Your task to perform on an android device: Open the stopwatch Image 0: 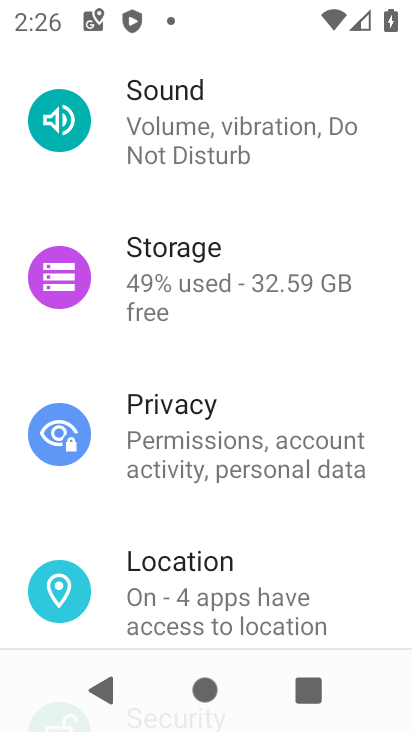
Step 0: press back button
Your task to perform on an android device: Open the stopwatch Image 1: 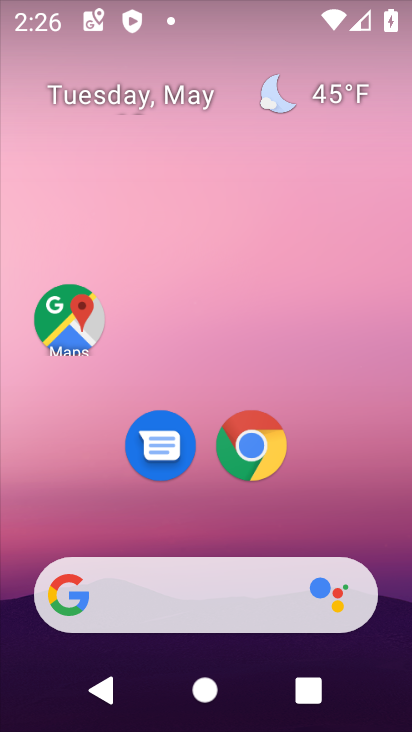
Step 1: drag from (191, 543) to (321, 68)
Your task to perform on an android device: Open the stopwatch Image 2: 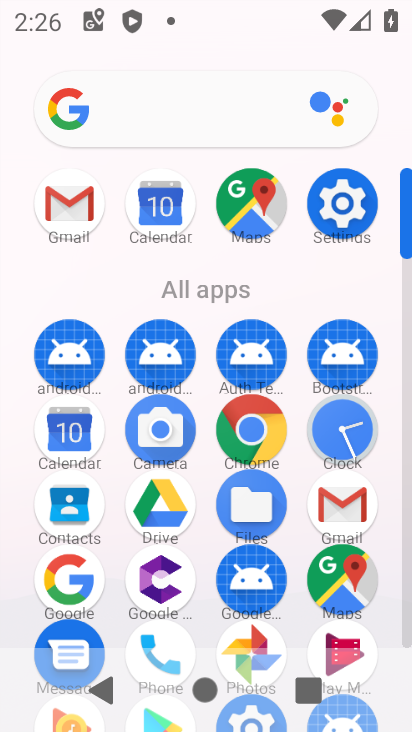
Step 2: click (341, 434)
Your task to perform on an android device: Open the stopwatch Image 3: 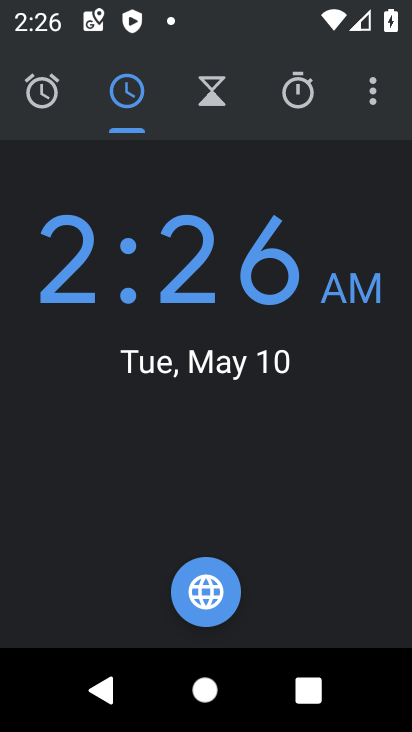
Step 3: click (297, 94)
Your task to perform on an android device: Open the stopwatch Image 4: 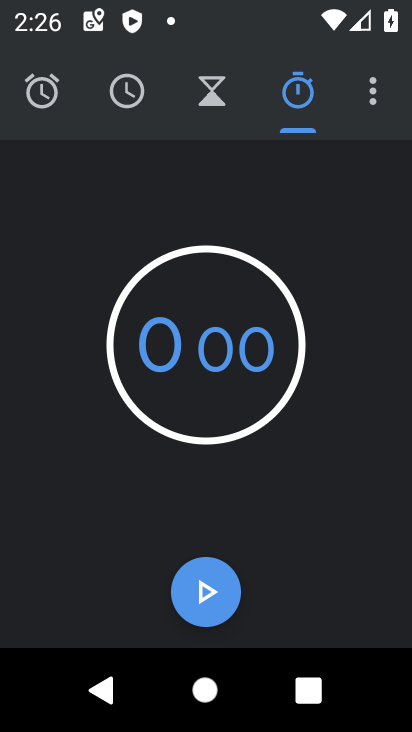
Step 4: click (165, 365)
Your task to perform on an android device: Open the stopwatch Image 5: 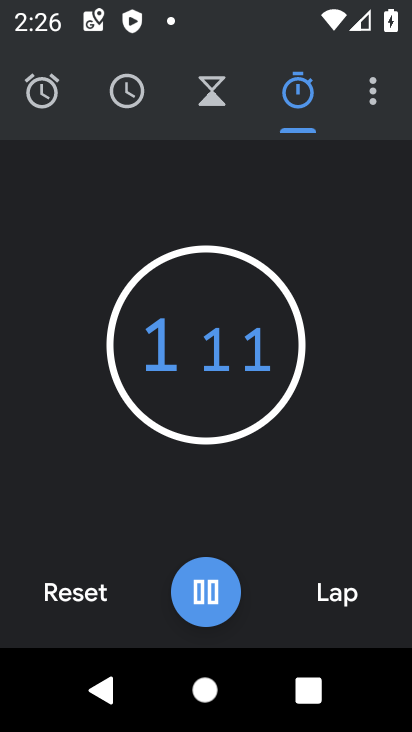
Step 5: click (178, 355)
Your task to perform on an android device: Open the stopwatch Image 6: 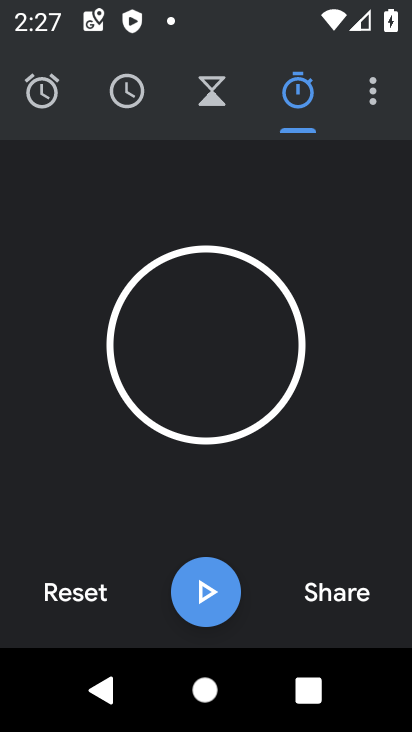
Step 6: task complete